Your task to perform on an android device: toggle priority inbox in the gmail app Image 0: 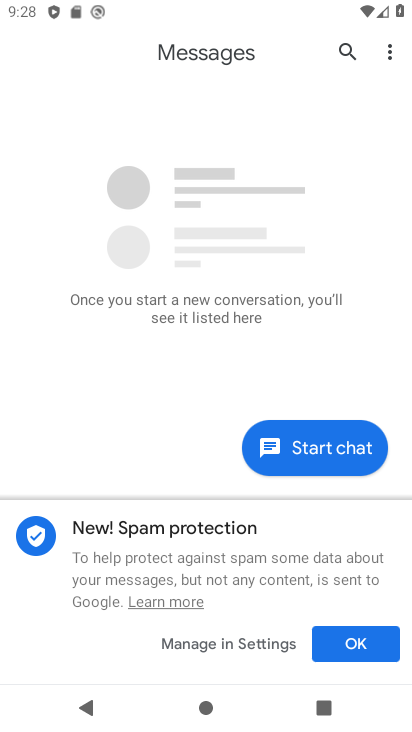
Step 0: press home button
Your task to perform on an android device: toggle priority inbox in the gmail app Image 1: 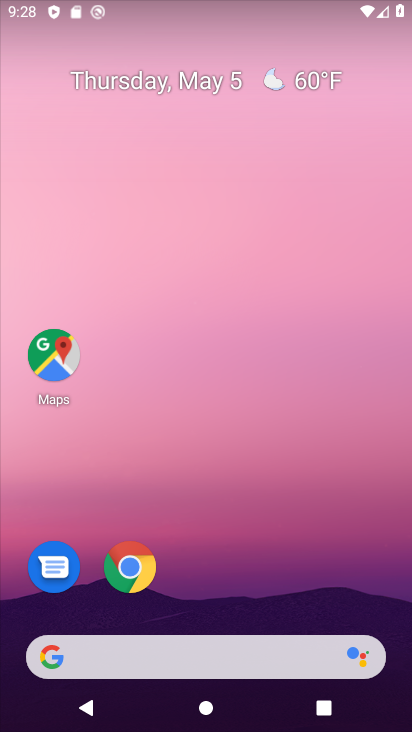
Step 1: drag from (250, 567) to (274, 132)
Your task to perform on an android device: toggle priority inbox in the gmail app Image 2: 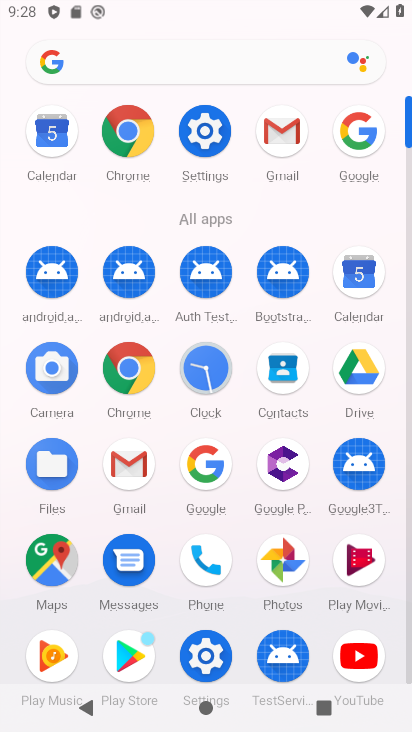
Step 2: click (274, 153)
Your task to perform on an android device: toggle priority inbox in the gmail app Image 3: 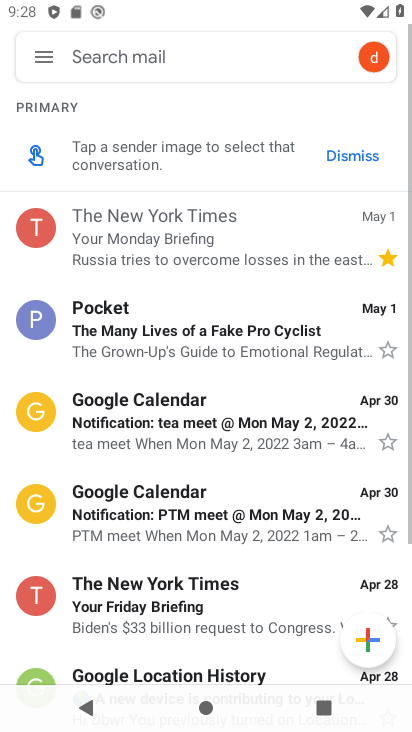
Step 3: click (35, 53)
Your task to perform on an android device: toggle priority inbox in the gmail app Image 4: 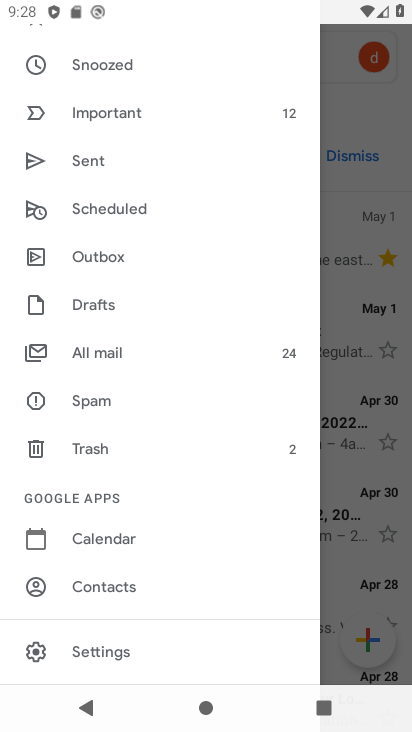
Step 4: click (101, 639)
Your task to perform on an android device: toggle priority inbox in the gmail app Image 5: 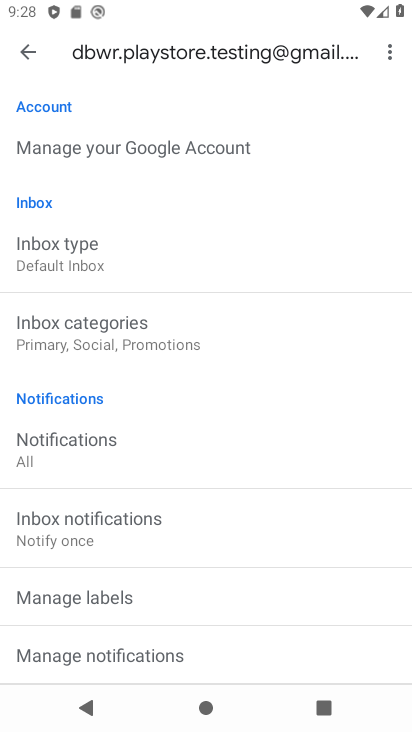
Step 5: drag from (153, 561) to (197, 241)
Your task to perform on an android device: toggle priority inbox in the gmail app Image 6: 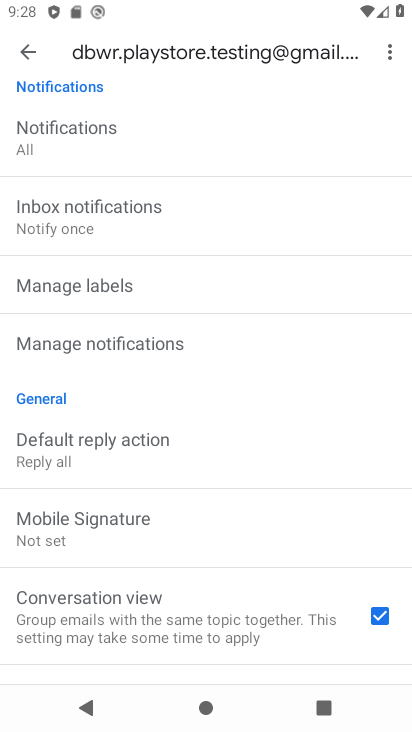
Step 6: drag from (188, 569) to (214, 161)
Your task to perform on an android device: toggle priority inbox in the gmail app Image 7: 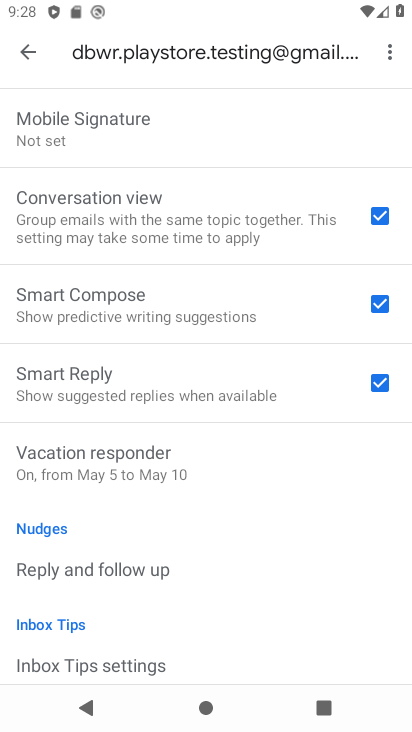
Step 7: drag from (173, 605) to (157, 329)
Your task to perform on an android device: toggle priority inbox in the gmail app Image 8: 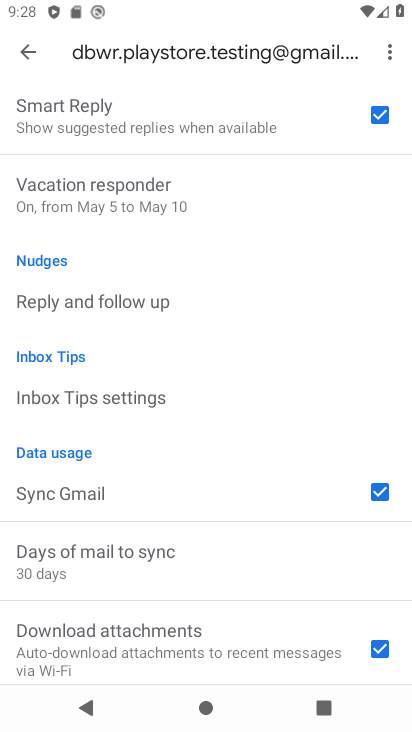
Step 8: drag from (169, 243) to (171, 578)
Your task to perform on an android device: toggle priority inbox in the gmail app Image 9: 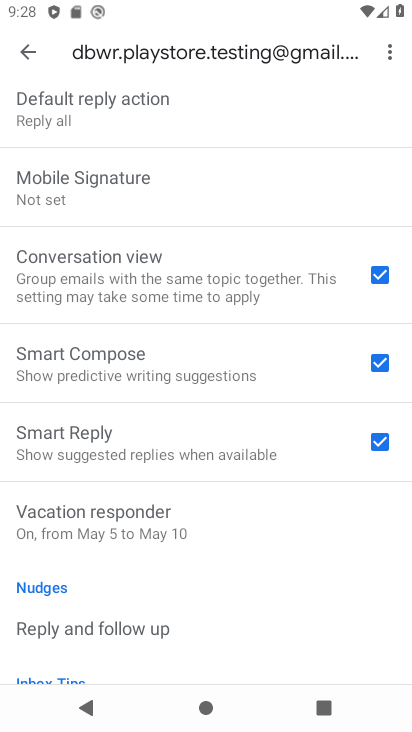
Step 9: drag from (172, 260) to (177, 487)
Your task to perform on an android device: toggle priority inbox in the gmail app Image 10: 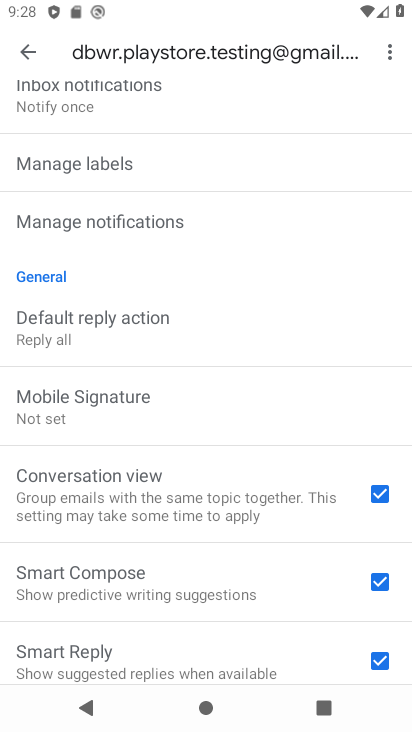
Step 10: drag from (172, 214) to (179, 431)
Your task to perform on an android device: toggle priority inbox in the gmail app Image 11: 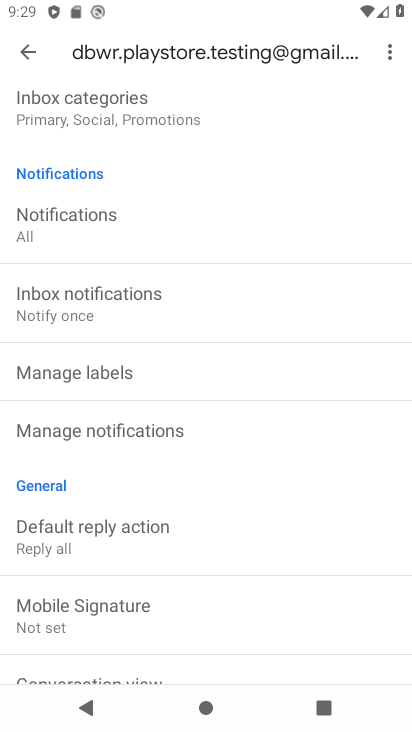
Step 11: drag from (208, 161) to (196, 363)
Your task to perform on an android device: toggle priority inbox in the gmail app Image 12: 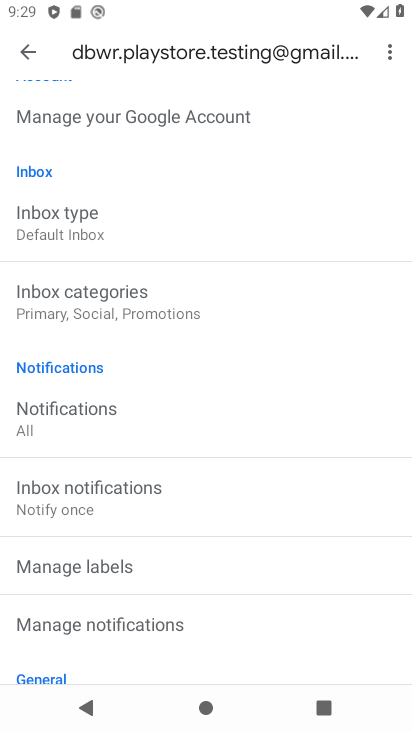
Step 12: click (73, 235)
Your task to perform on an android device: toggle priority inbox in the gmail app Image 13: 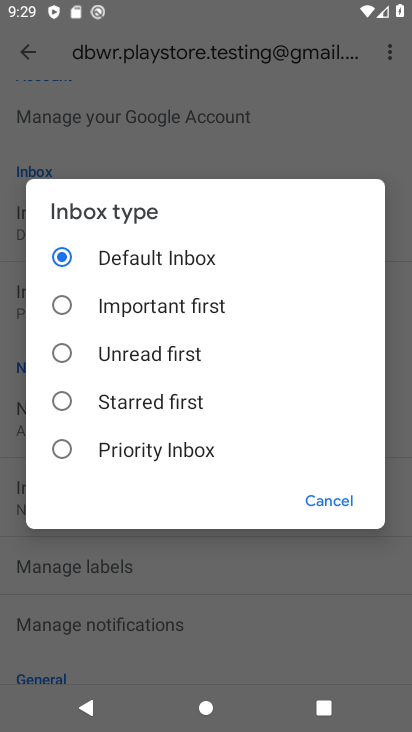
Step 13: click (125, 452)
Your task to perform on an android device: toggle priority inbox in the gmail app Image 14: 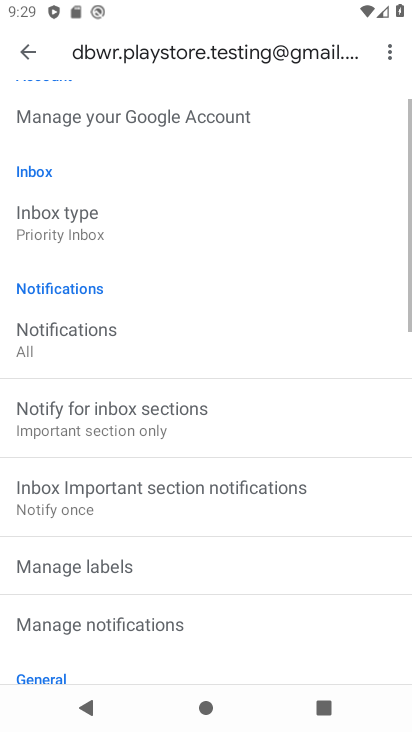
Step 14: task complete